Your task to perform on an android device: open app "WhatsApp Messenger" (install if not already installed) Image 0: 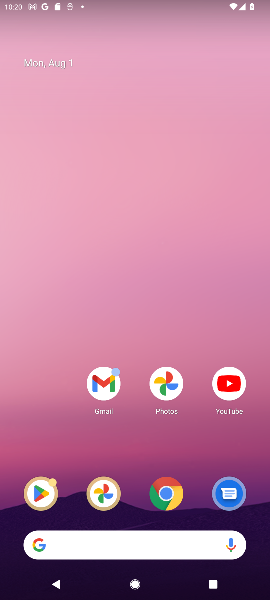
Step 0: drag from (64, 520) to (75, 80)
Your task to perform on an android device: open app "WhatsApp Messenger" (install if not already installed) Image 1: 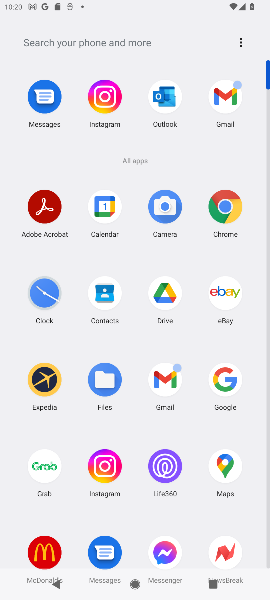
Step 1: click (111, 46)
Your task to perform on an android device: open app "WhatsApp Messenger" (install if not already installed) Image 2: 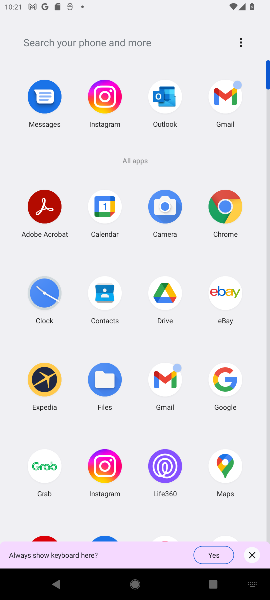
Step 2: type "what message"
Your task to perform on an android device: open app "WhatsApp Messenger" (install if not already installed) Image 3: 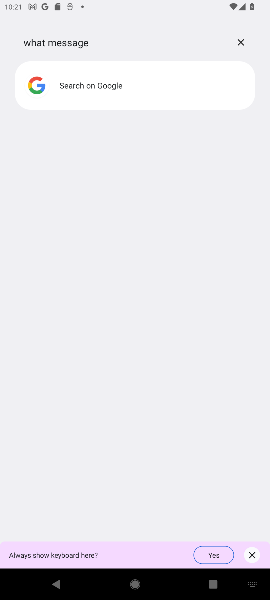
Step 3: task complete